Your task to perform on an android device: What is the recent news? Image 0: 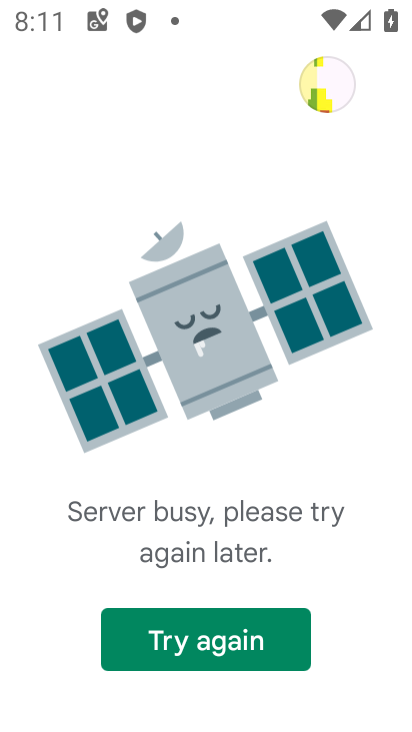
Step 0: press home button
Your task to perform on an android device: What is the recent news? Image 1: 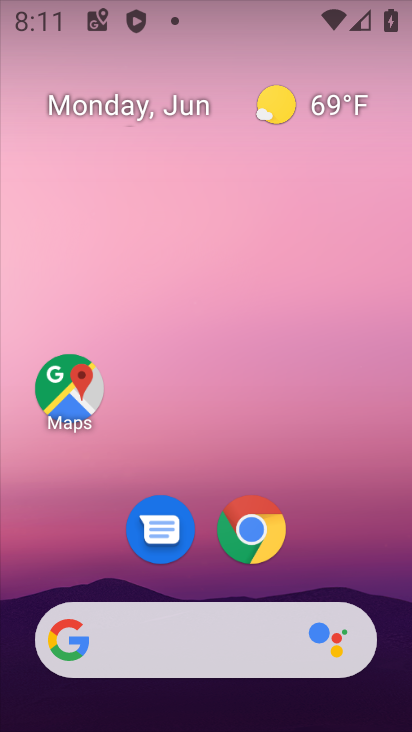
Step 1: click (258, 642)
Your task to perform on an android device: What is the recent news? Image 2: 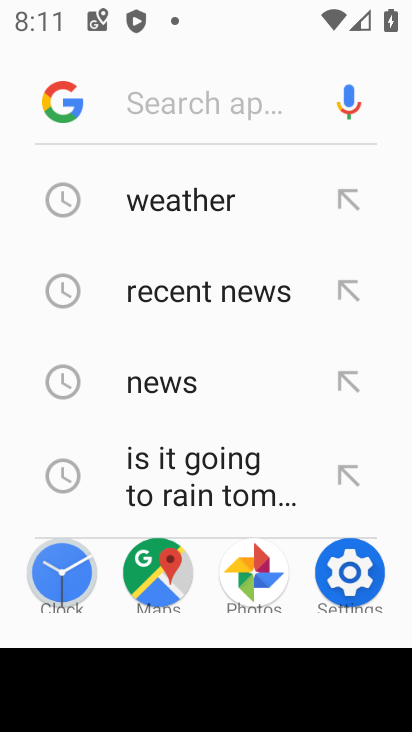
Step 2: click (245, 291)
Your task to perform on an android device: What is the recent news? Image 3: 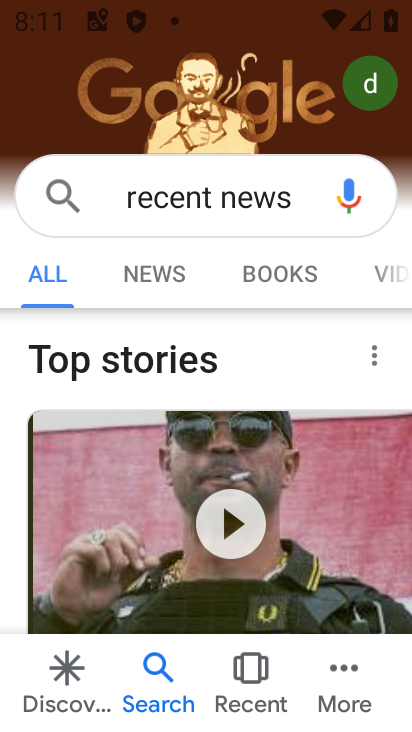
Step 3: task complete